Your task to perform on an android device: Open my contact list Image 0: 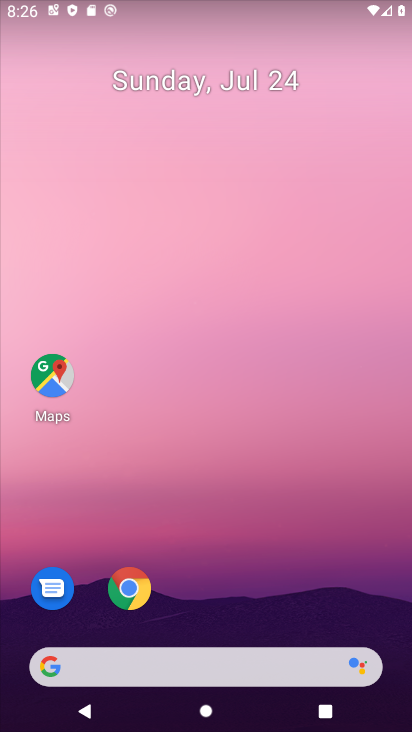
Step 0: drag from (119, 602) to (53, 7)
Your task to perform on an android device: Open my contact list Image 1: 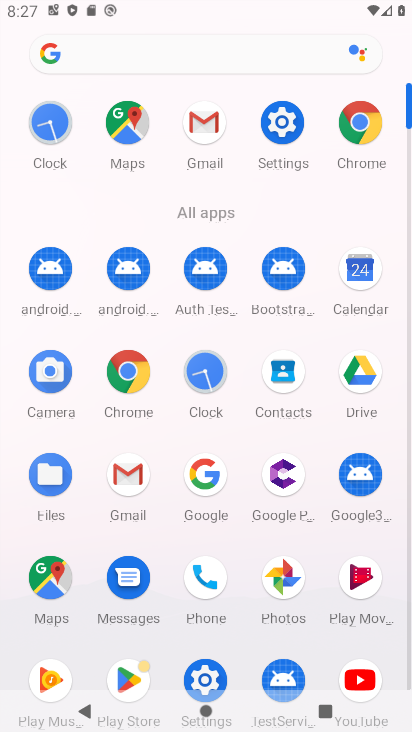
Step 1: click (279, 369)
Your task to perform on an android device: Open my contact list Image 2: 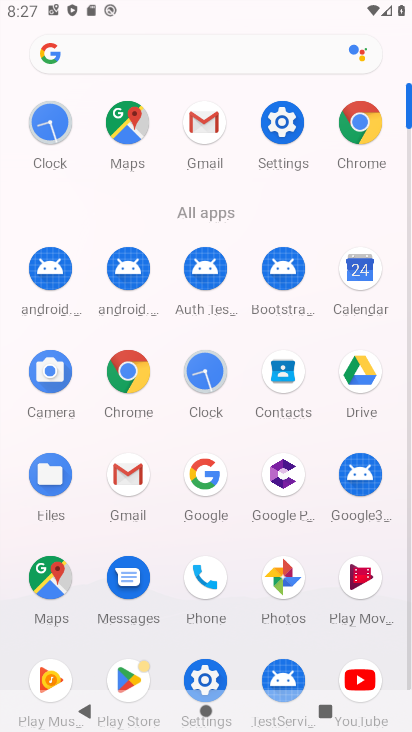
Step 2: click (279, 369)
Your task to perform on an android device: Open my contact list Image 3: 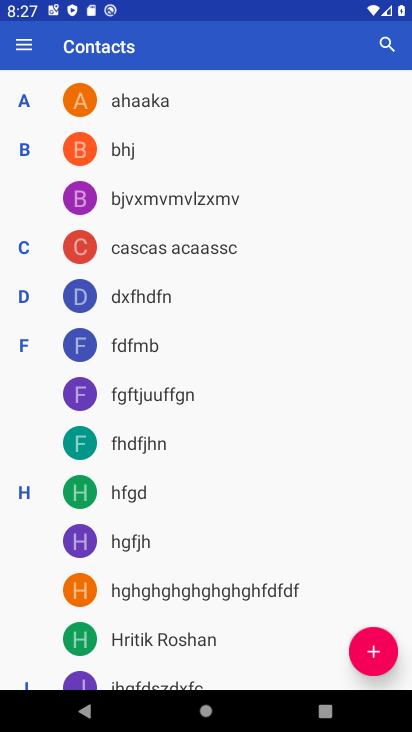
Step 3: task complete